Your task to perform on an android device: Open Reddit.com Image 0: 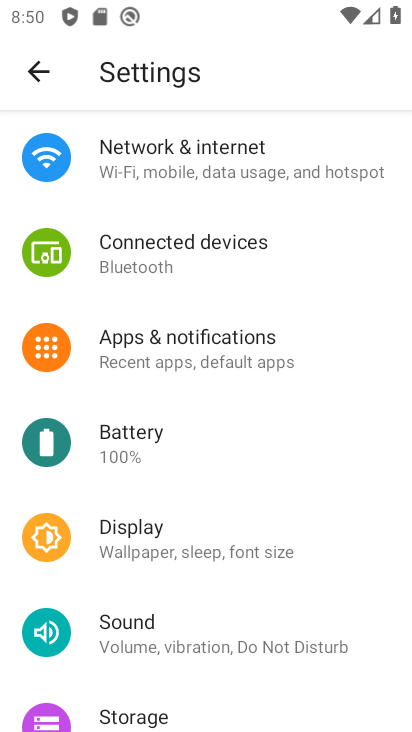
Step 0: press home button
Your task to perform on an android device: Open Reddit.com Image 1: 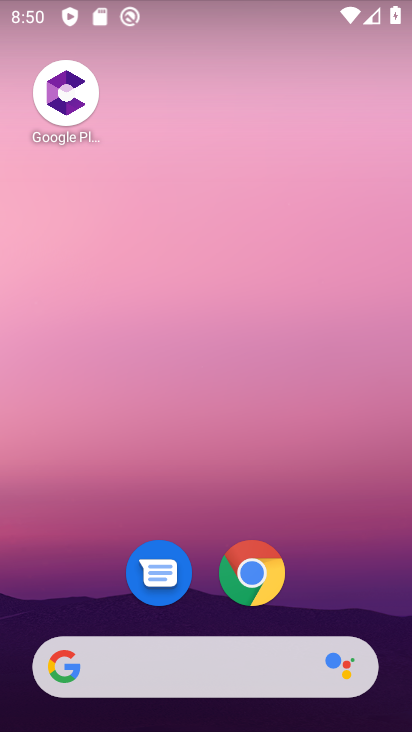
Step 1: click (250, 566)
Your task to perform on an android device: Open Reddit.com Image 2: 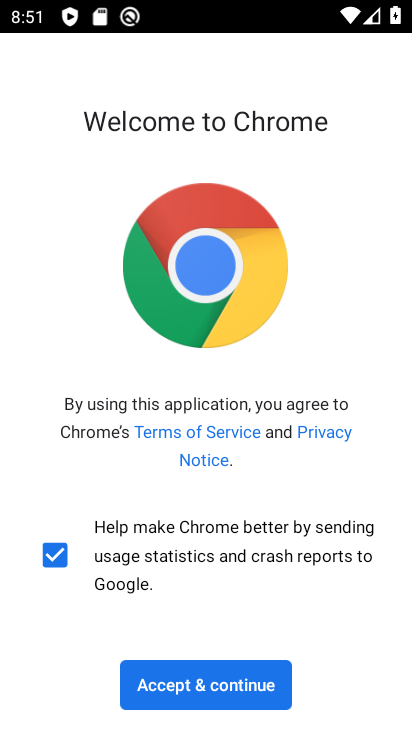
Step 2: click (253, 698)
Your task to perform on an android device: Open Reddit.com Image 3: 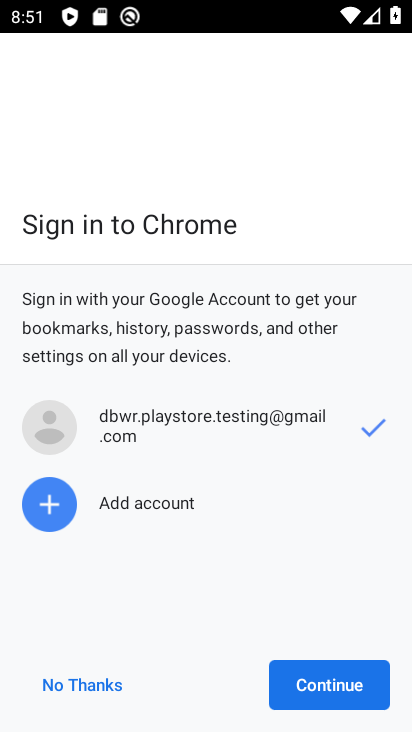
Step 3: click (69, 697)
Your task to perform on an android device: Open Reddit.com Image 4: 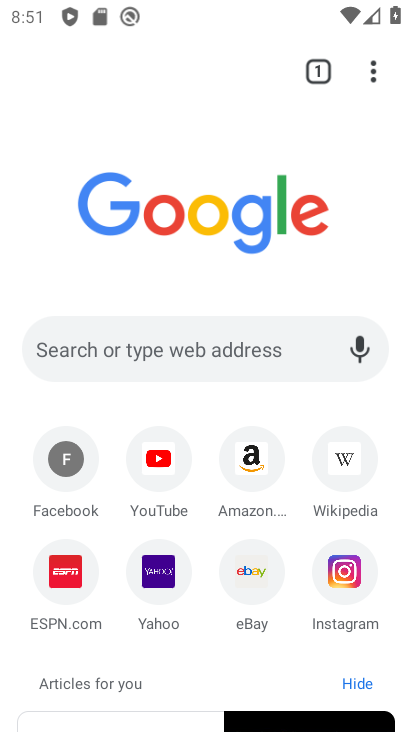
Step 4: click (229, 338)
Your task to perform on an android device: Open Reddit.com Image 5: 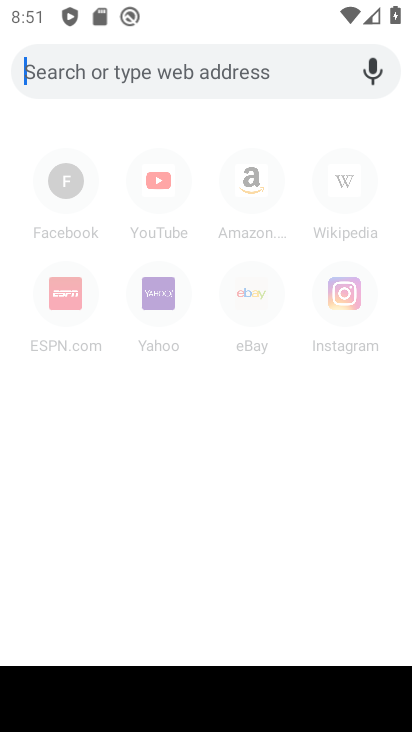
Step 5: type " Reddit.com"
Your task to perform on an android device: Open Reddit.com Image 6: 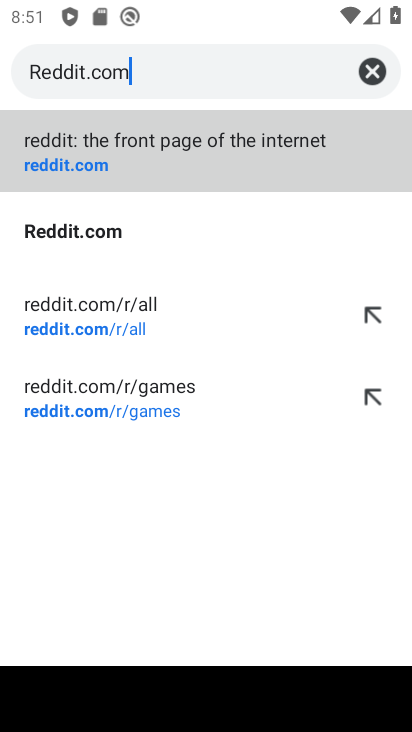
Step 6: type ""
Your task to perform on an android device: Open Reddit.com Image 7: 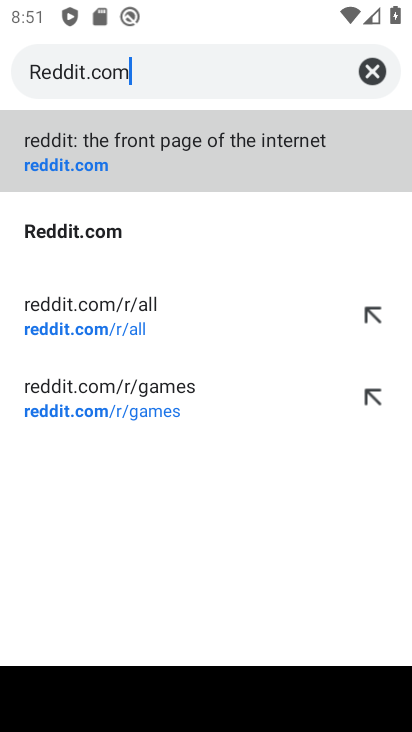
Step 7: click (66, 233)
Your task to perform on an android device: Open Reddit.com Image 8: 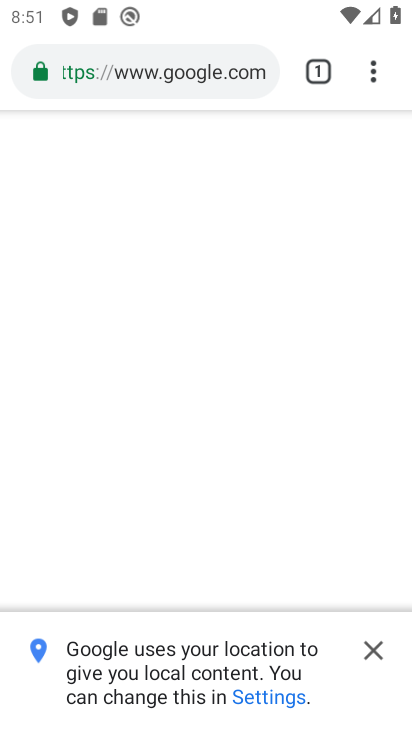
Step 8: click (366, 651)
Your task to perform on an android device: Open Reddit.com Image 9: 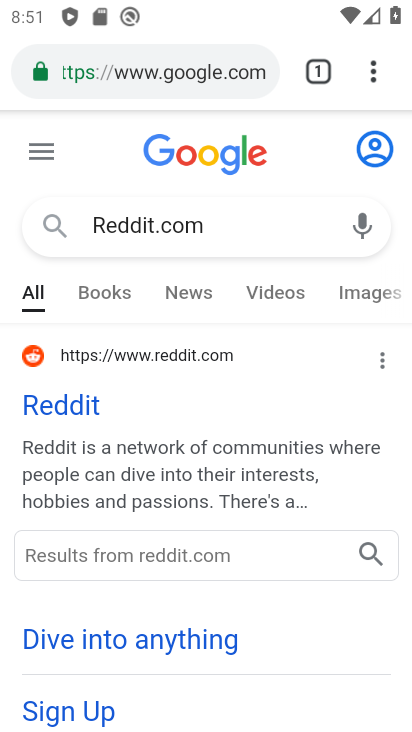
Step 9: click (77, 411)
Your task to perform on an android device: Open Reddit.com Image 10: 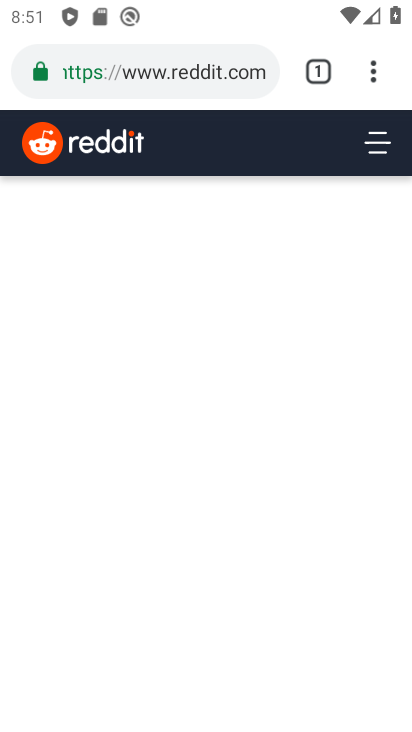
Step 10: task complete